Your task to perform on an android device: turn off improve location accuracy Image 0: 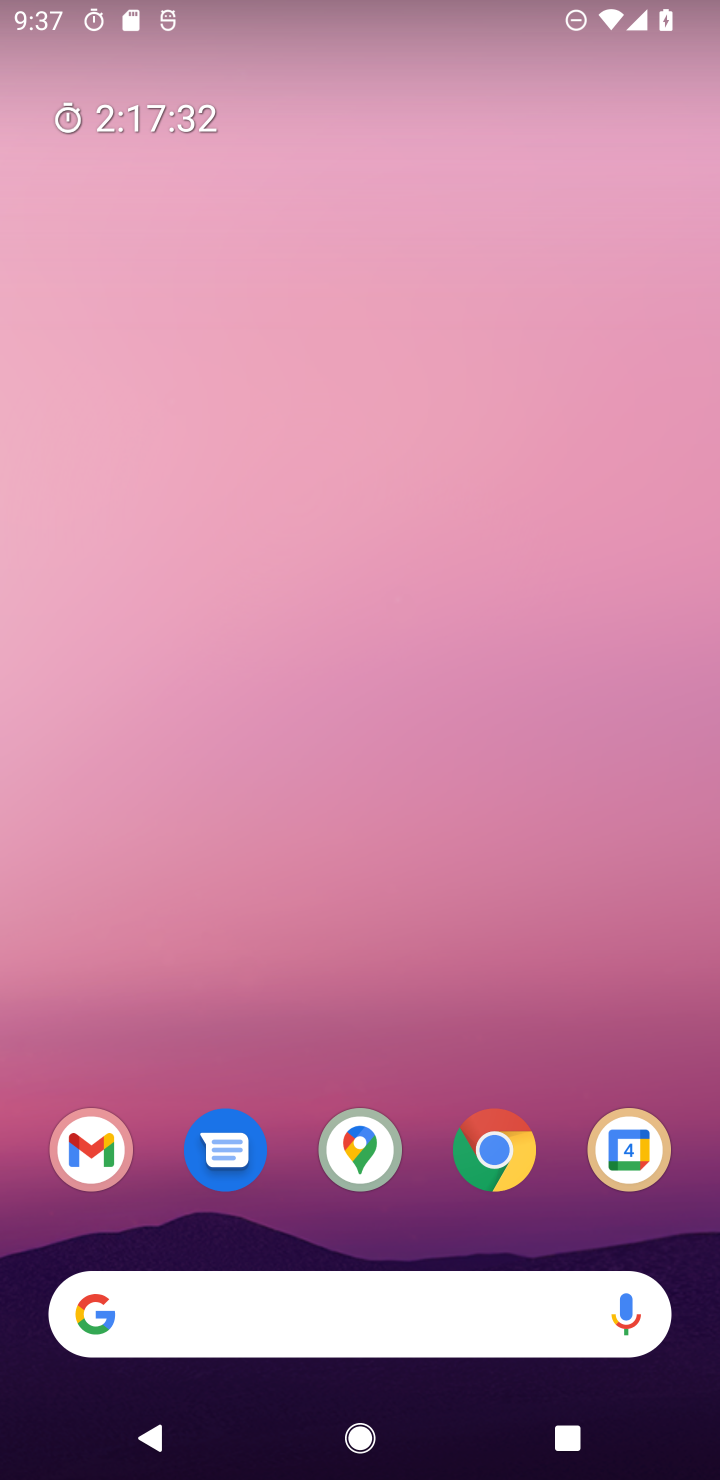
Step 0: drag from (380, 1304) to (261, 1)
Your task to perform on an android device: turn off improve location accuracy Image 1: 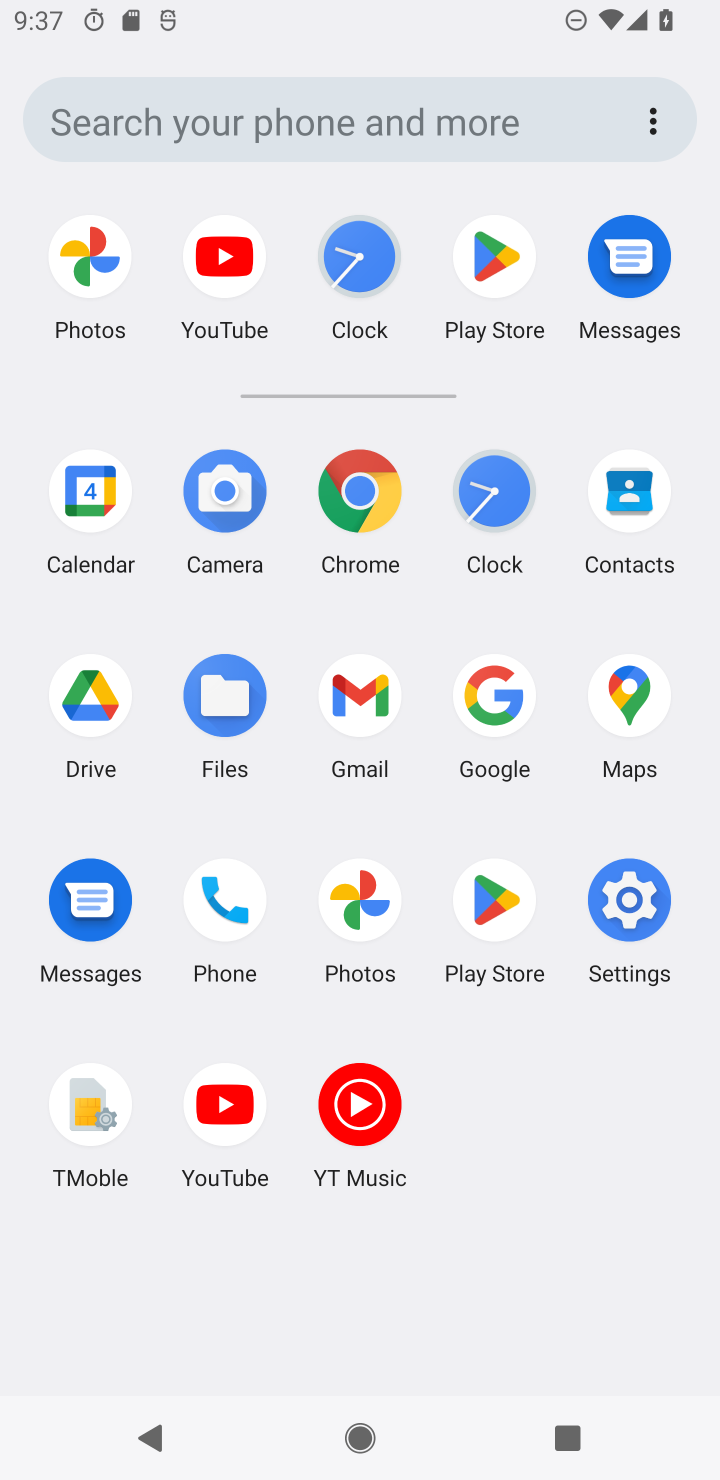
Step 1: click (634, 871)
Your task to perform on an android device: turn off improve location accuracy Image 2: 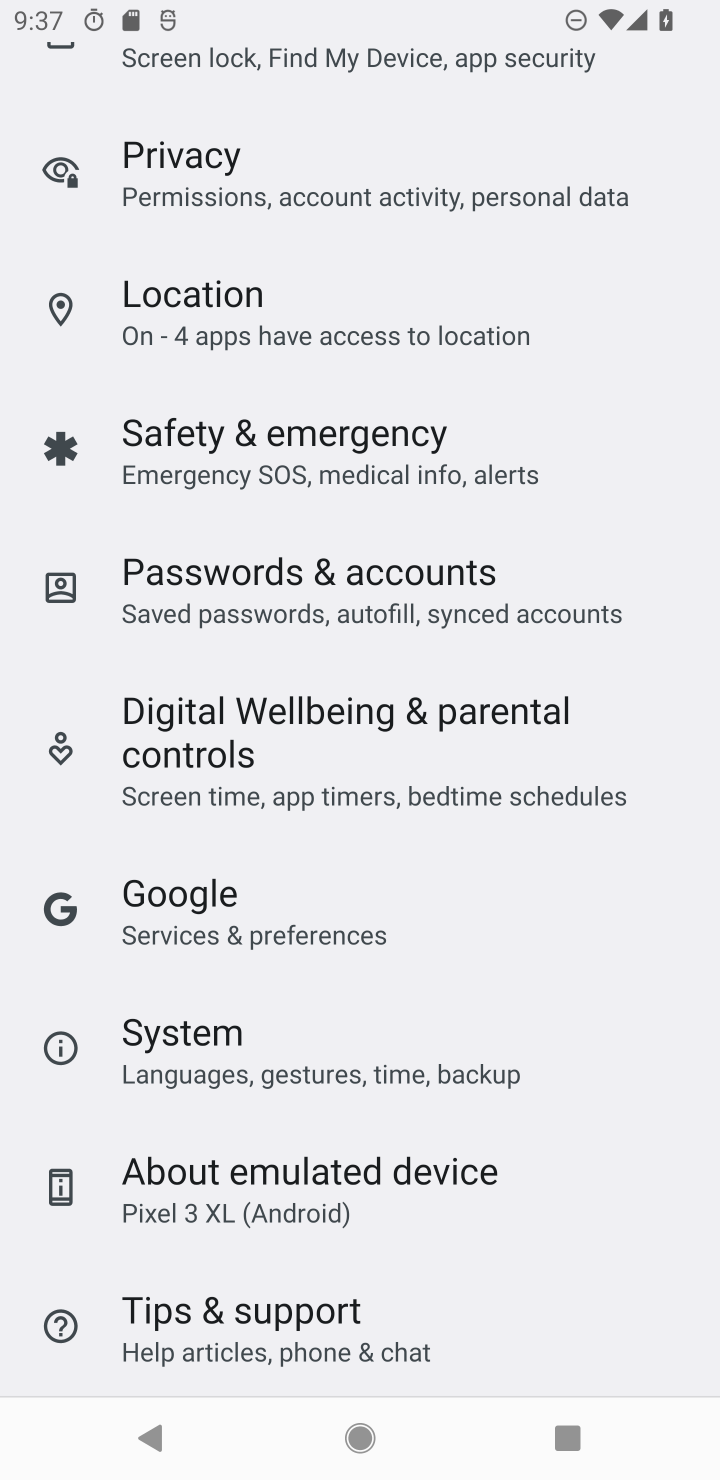
Step 2: click (237, 308)
Your task to perform on an android device: turn off improve location accuracy Image 3: 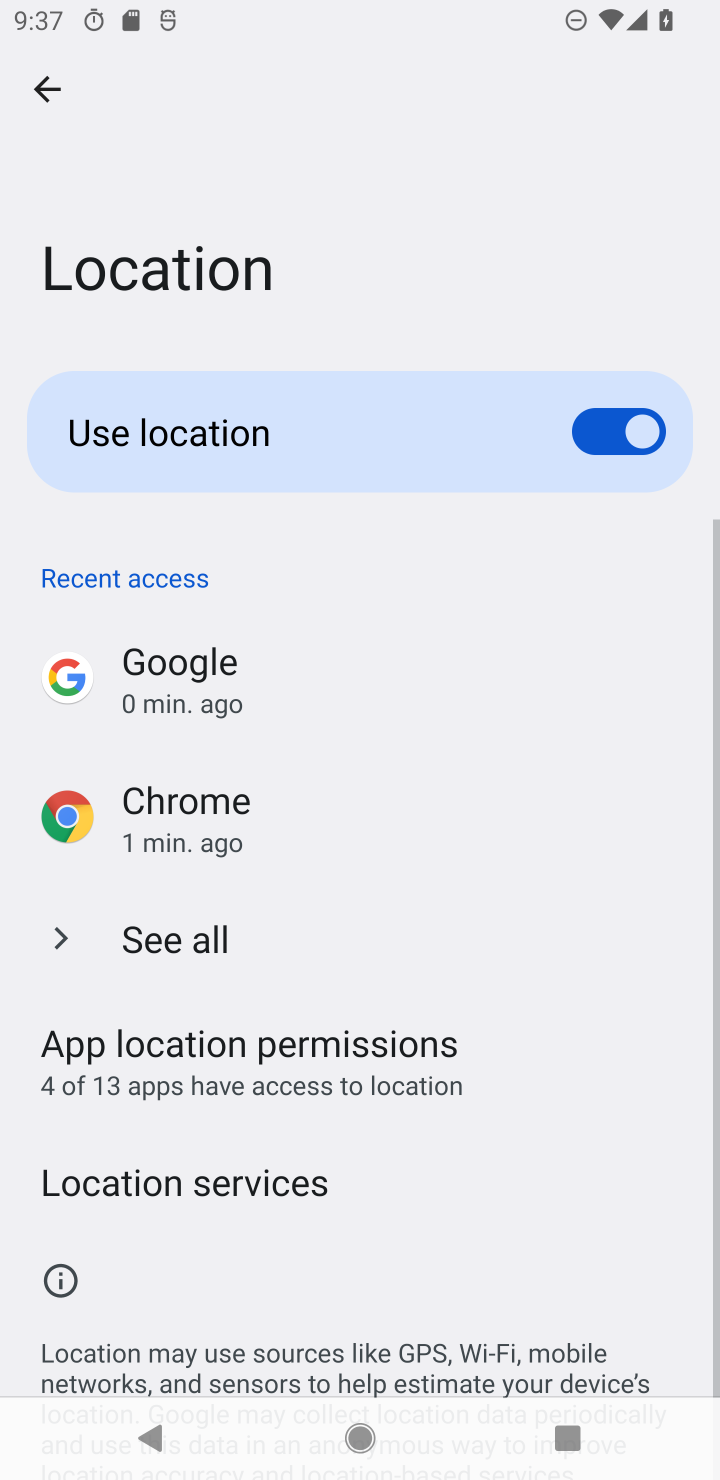
Step 3: drag from (334, 1026) to (359, 15)
Your task to perform on an android device: turn off improve location accuracy Image 4: 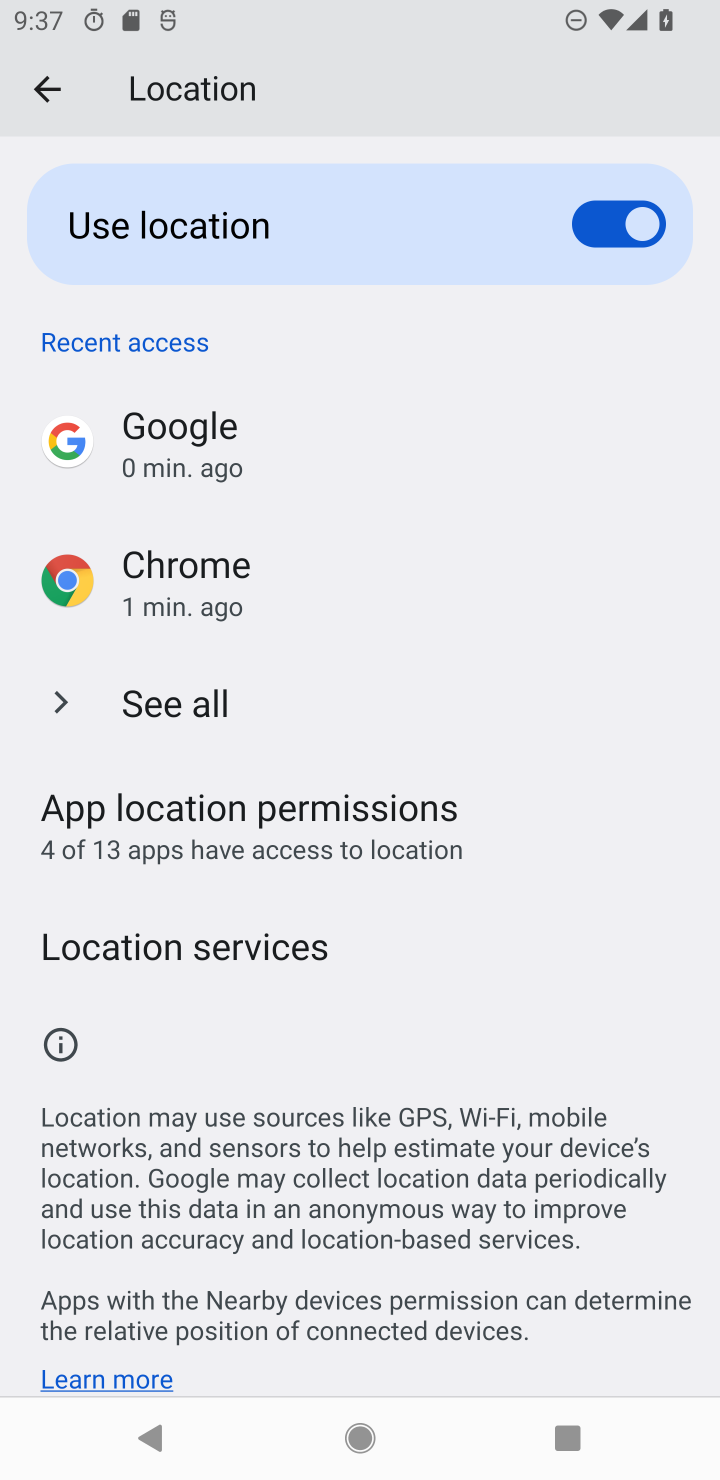
Step 4: click (282, 946)
Your task to perform on an android device: turn off improve location accuracy Image 5: 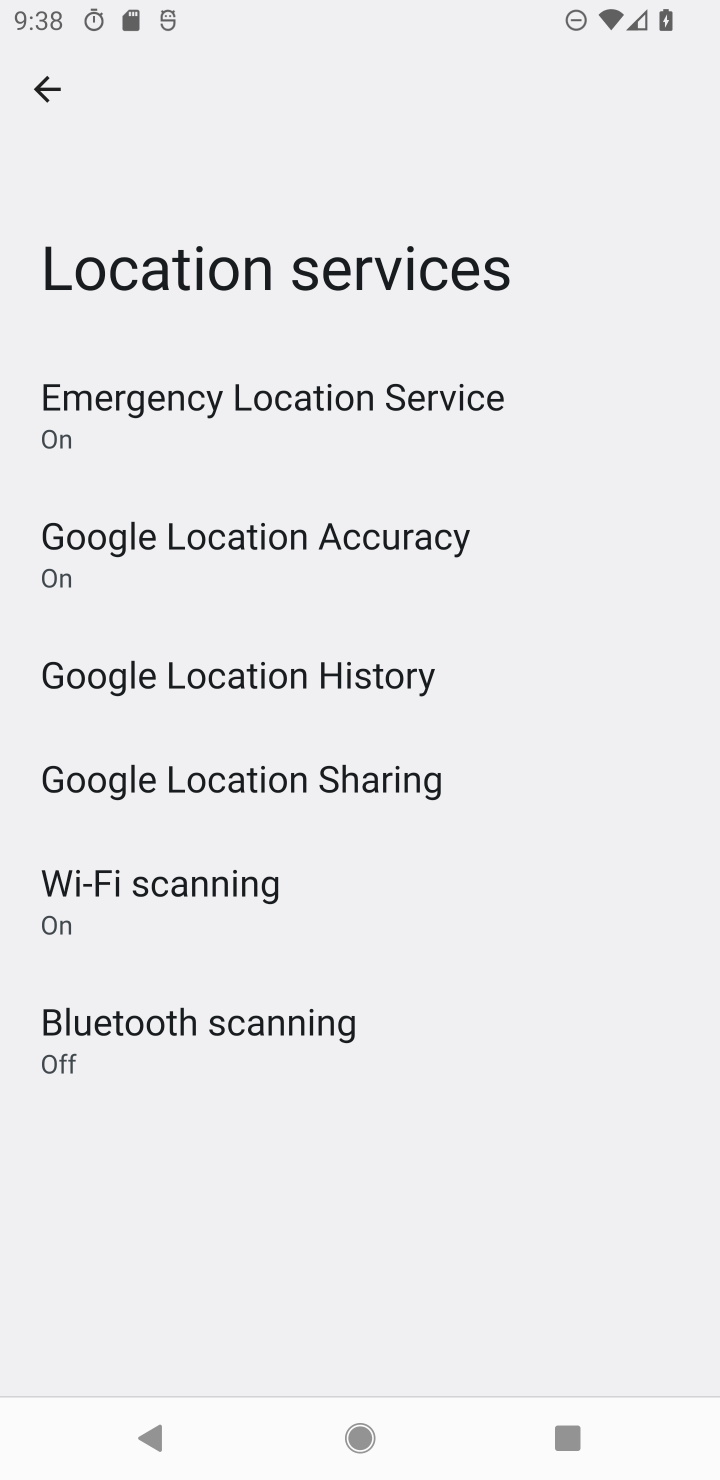
Step 5: click (312, 555)
Your task to perform on an android device: turn off improve location accuracy Image 6: 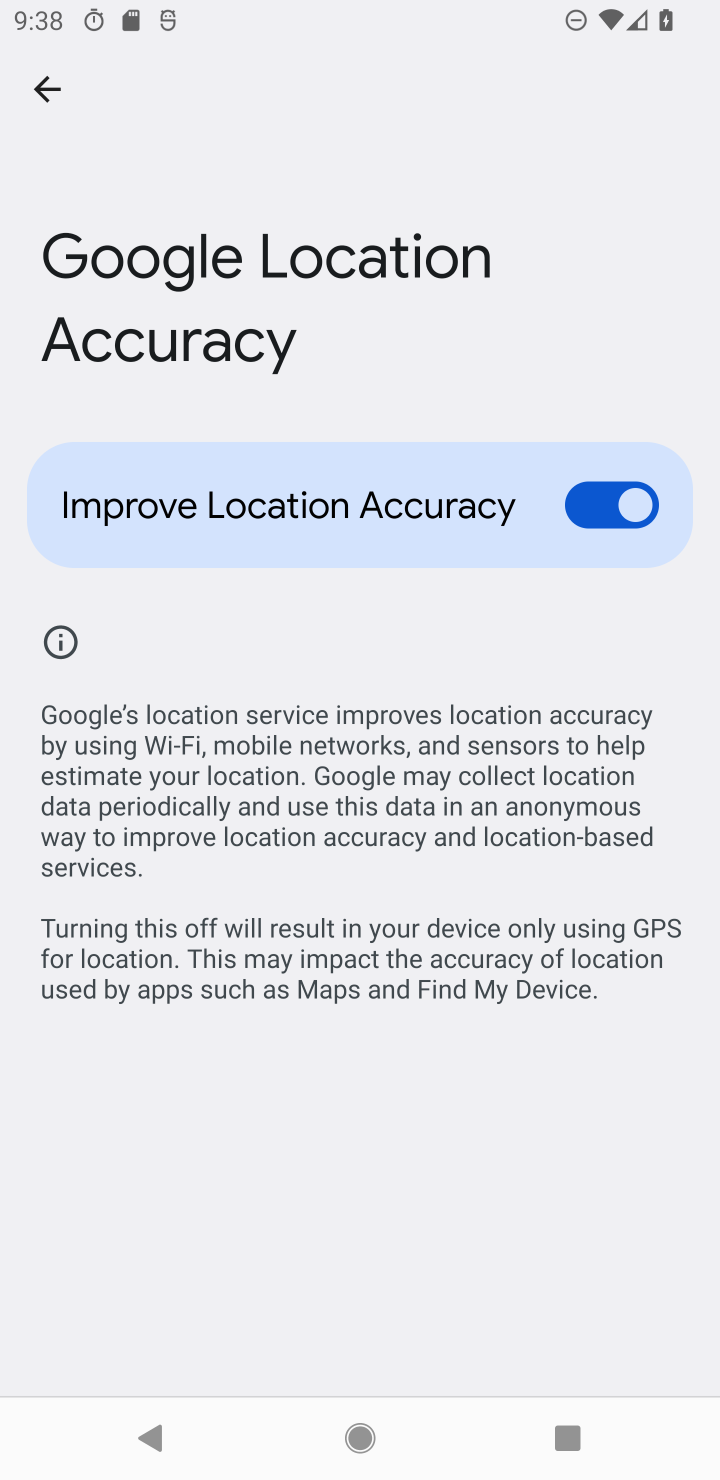
Step 6: click (609, 491)
Your task to perform on an android device: turn off improve location accuracy Image 7: 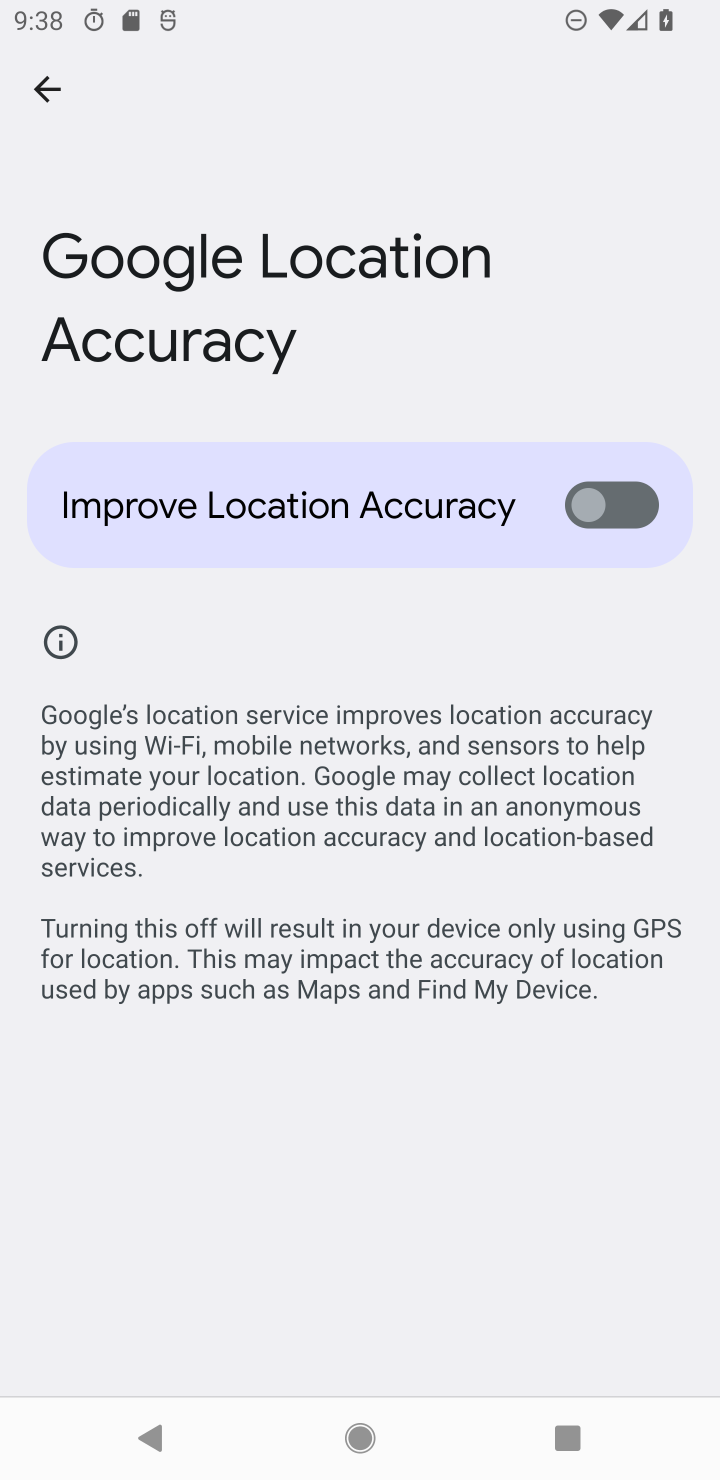
Step 7: task complete